Your task to perform on an android device: turn off priority inbox in the gmail app Image 0: 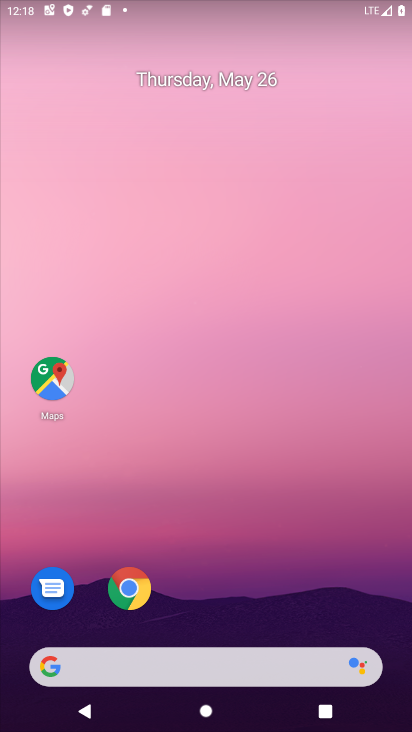
Step 0: drag from (227, 582) to (114, 6)
Your task to perform on an android device: turn off priority inbox in the gmail app Image 1: 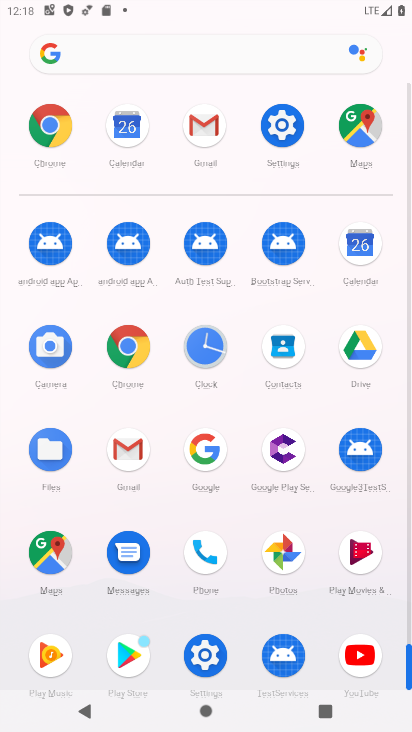
Step 1: click (199, 120)
Your task to perform on an android device: turn off priority inbox in the gmail app Image 2: 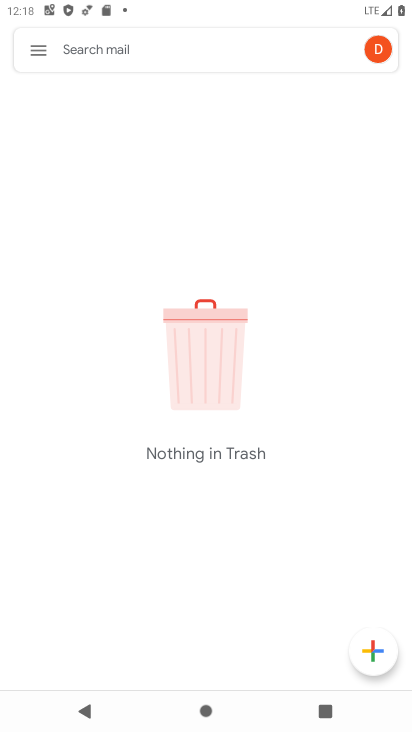
Step 2: click (33, 51)
Your task to perform on an android device: turn off priority inbox in the gmail app Image 3: 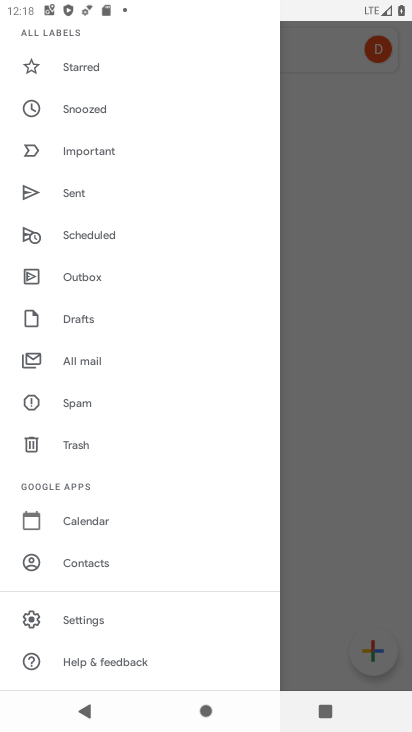
Step 3: click (81, 624)
Your task to perform on an android device: turn off priority inbox in the gmail app Image 4: 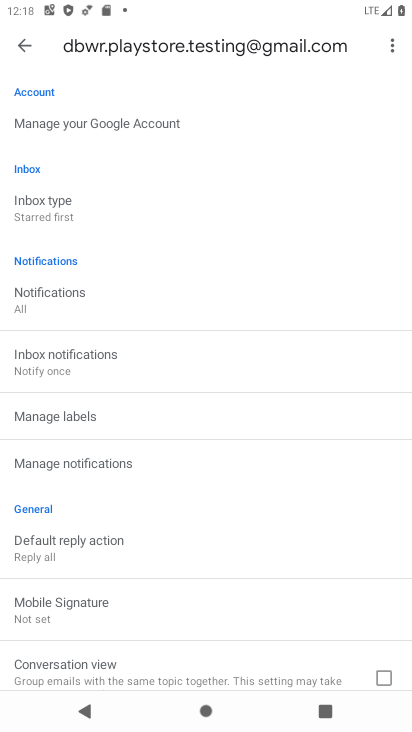
Step 4: drag from (205, 598) to (206, 175)
Your task to perform on an android device: turn off priority inbox in the gmail app Image 5: 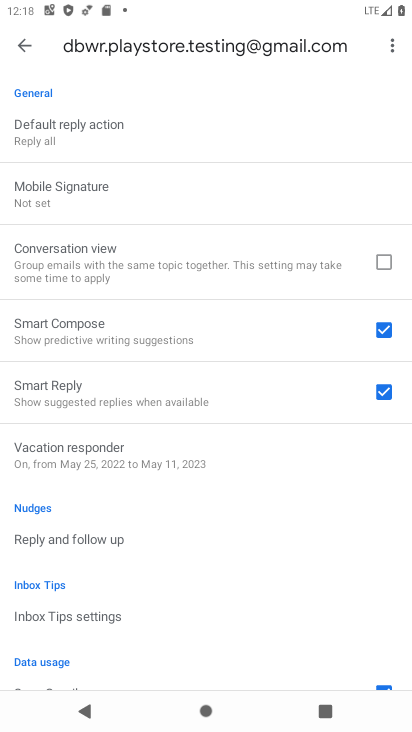
Step 5: drag from (212, 554) to (211, 153)
Your task to perform on an android device: turn off priority inbox in the gmail app Image 6: 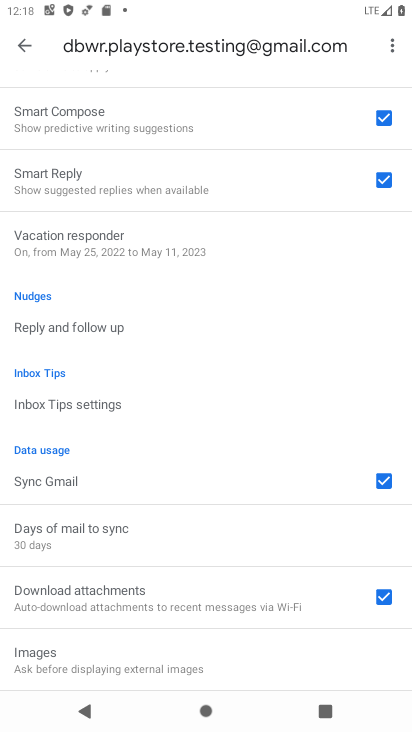
Step 6: drag from (190, 556) to (196, 201)
Your task to perform on an android device: turn off priority inbox in the gmail app Image 7: 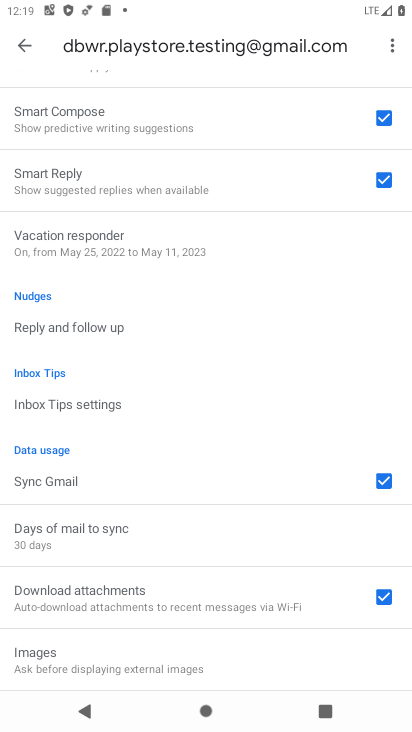
Step 7: drag from (183, 258) to (202, 594)
Your task to perform on an android device: turn off priority inbox in the gmail app Image 8: 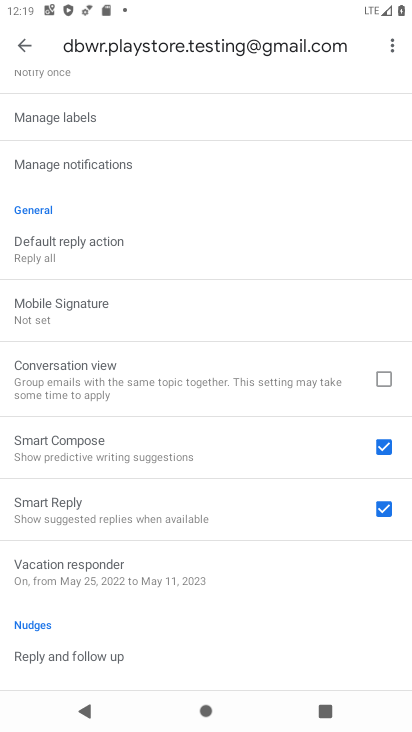
Step 8: drag from (165, 224) to (188, 653)
Your task to perform on an android device: turn off priority inbox in the gmail app Image 9: 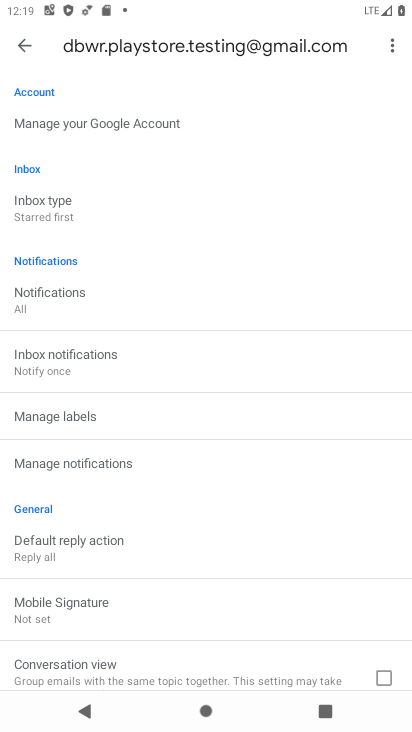
Step 9: click (96, 212)
Your task to perform on an android device: turn off priority inbox in the gmail app Image 10: 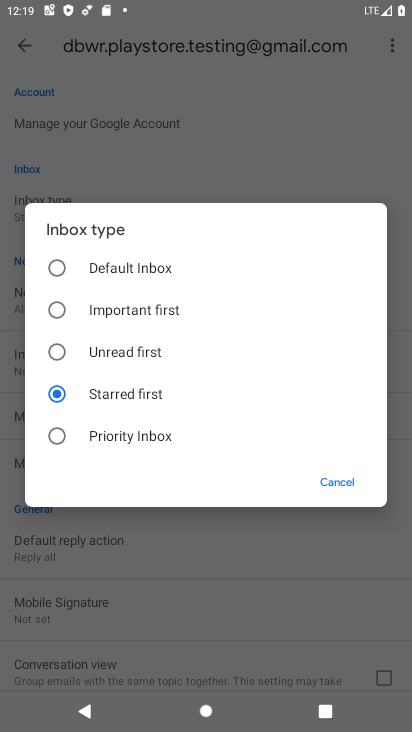
Step 10: click (131, 435)
Your task to perform on an android device: turn off priority inbox in the gmail app Image 11: 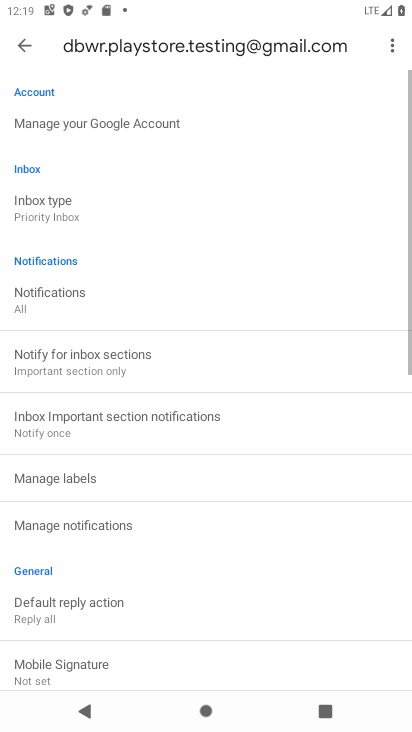
Step 11: click (98, 196)
Your task to perform on an android device: turn off priority inbox in the gmail app Image 12: 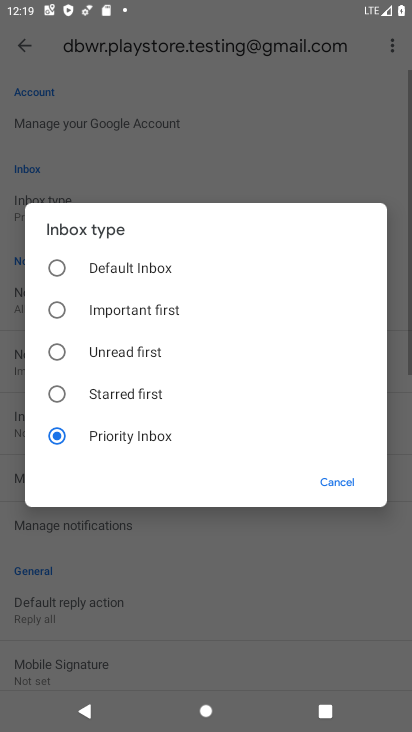
Step 12: click (133, 258)
Your task to perform on an android device: turn off priority inbox in the gmail app Image 13: 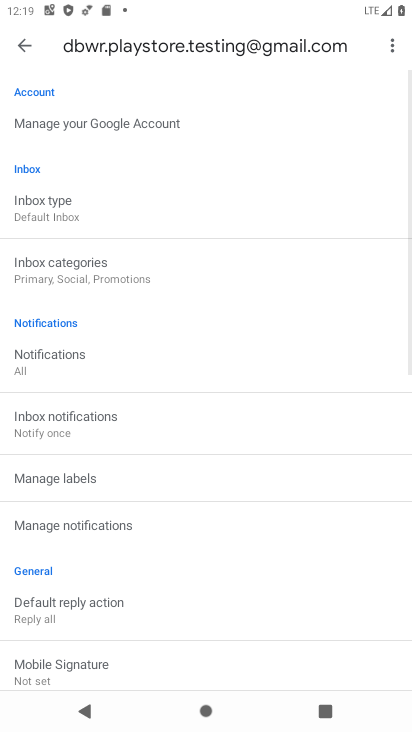
Step 13: click (102, 210)
Your task to perform on an android device: turn off priority inbox in the gmail app Image 14: 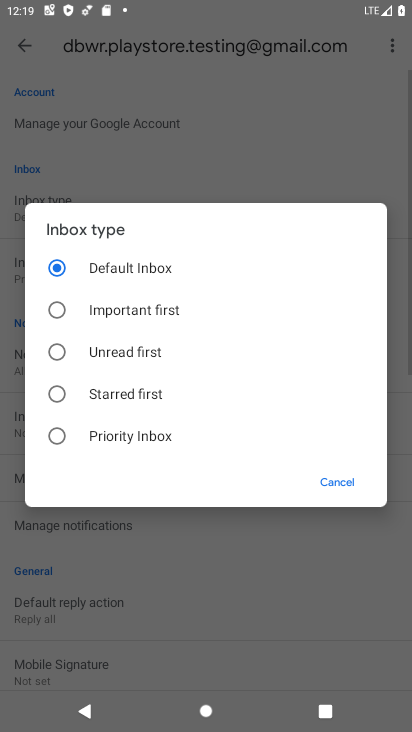
Step 14: click (127, 269)
Your task to perform on an android device: turn off priority inbox in the gmail app Image 15: 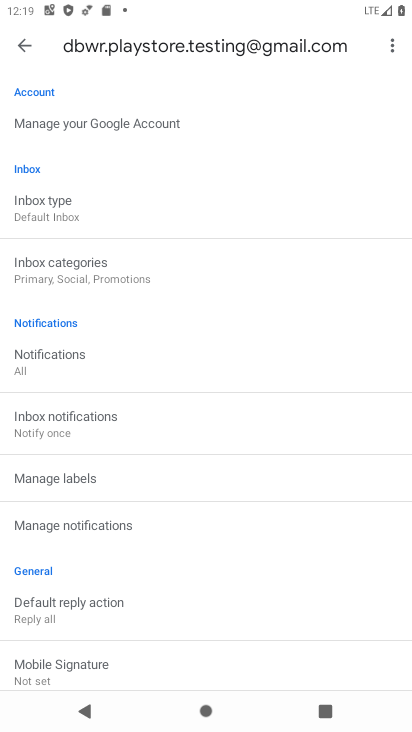
Step 15: task complete